Your task to perform on an android device: Open Google Chrome Image 0: 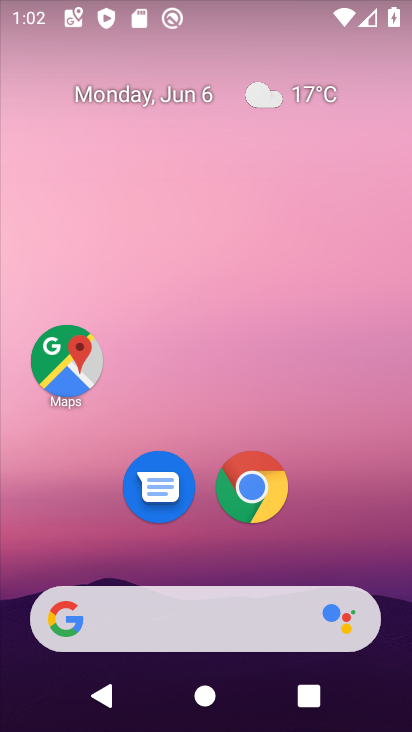
Step 0: click (249, 513)
Your task to perform on an android device: Open Google Chrome Image 1: 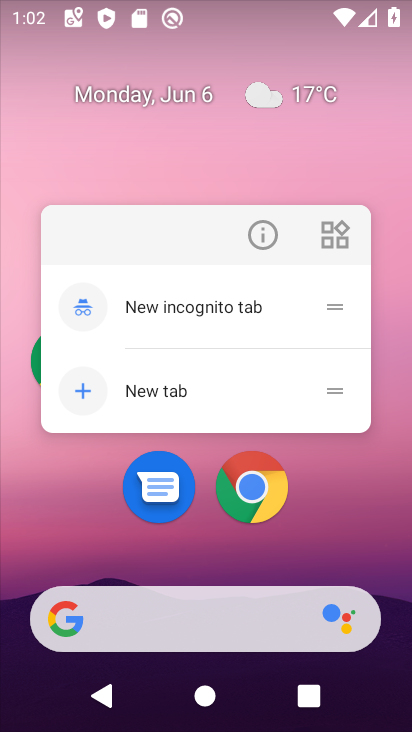
Step 1: click (253, 505)
Your task to perform on an android device: Open Google Chrome Image 2: 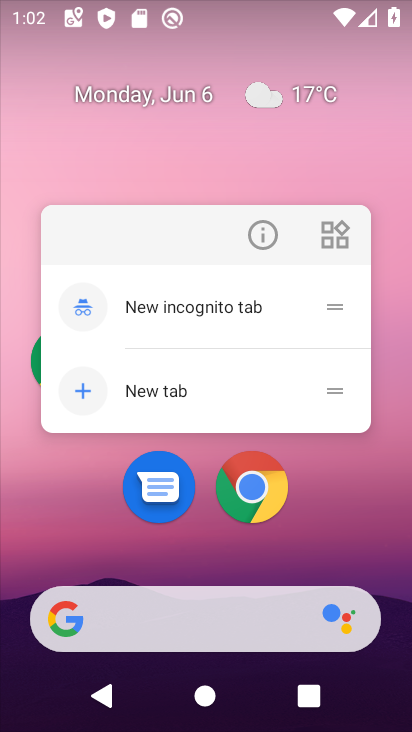
Step 2: click (258, 497)
Your task to perform on an android device: Open Google Chrome Image 3: 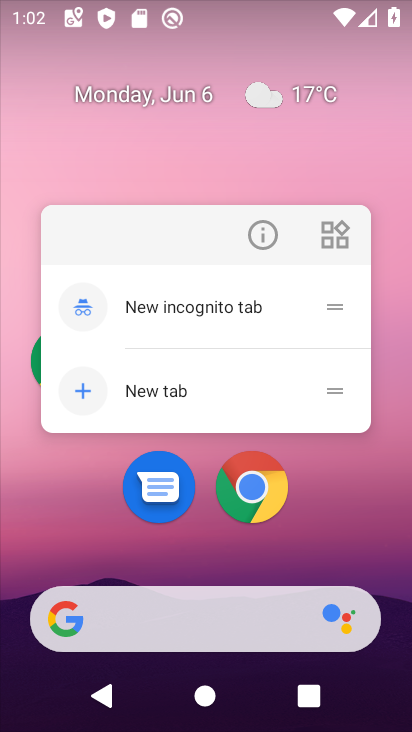
Step 3: click (266, 489)
Your task to perform on an android device: Open Google Chrome Image 4: 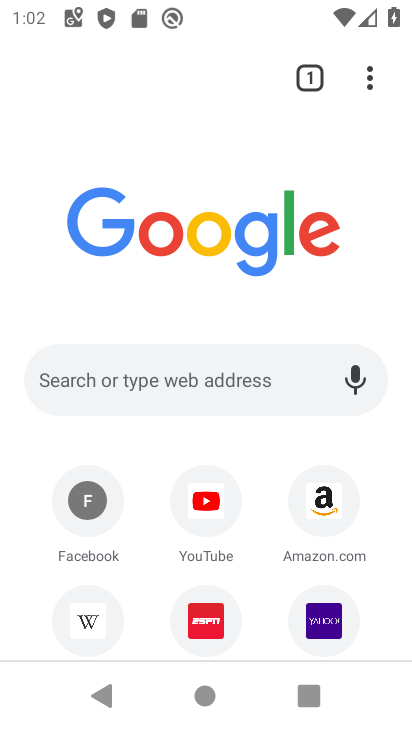
Step 4: task complete